Your task to perform on an android device: Open Chrome and go to settings Image 0: 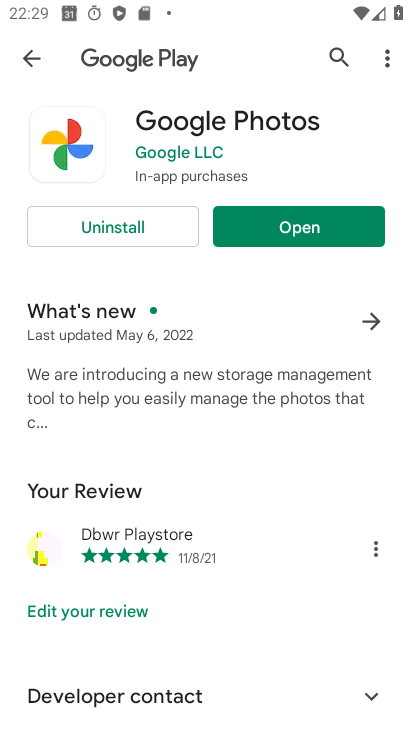
Step 0: press home button
Your task to perform on an android device: Open Chrome and go to settings Image 1: 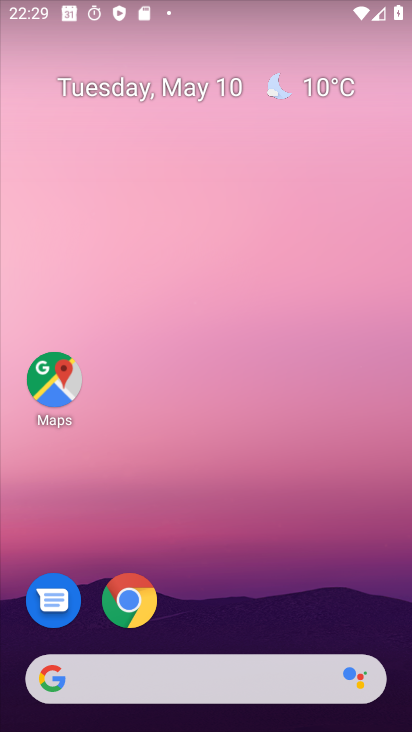
Step 1: drag from (307, 546) to (275, 21)
Your task to perform on an android device: Open Chrome and go to settings Image 2: 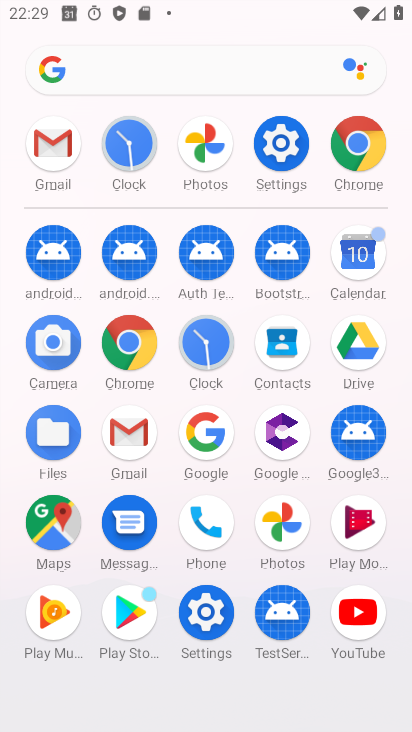
Step 2: click (353, 139)
Your task to perform on an android device: Open Chrome and go to settings Image 3: 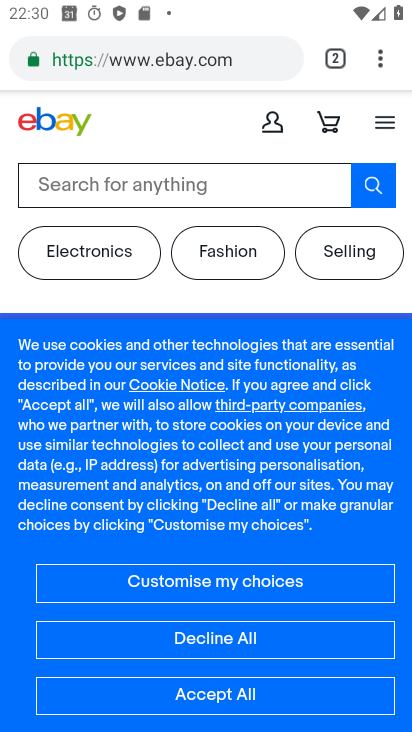
Step 3: task complete